Your task to perform on an android device: Go to Reddit.com Image 0: 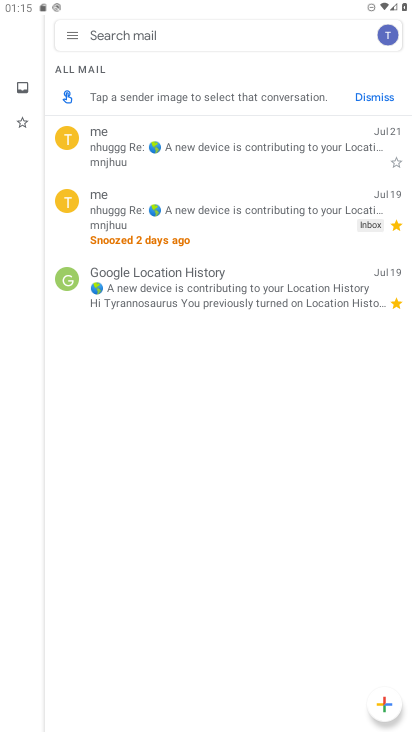
Step 0: press home button
Your task to perform on an android device: Go to Reddit.com Image 1: 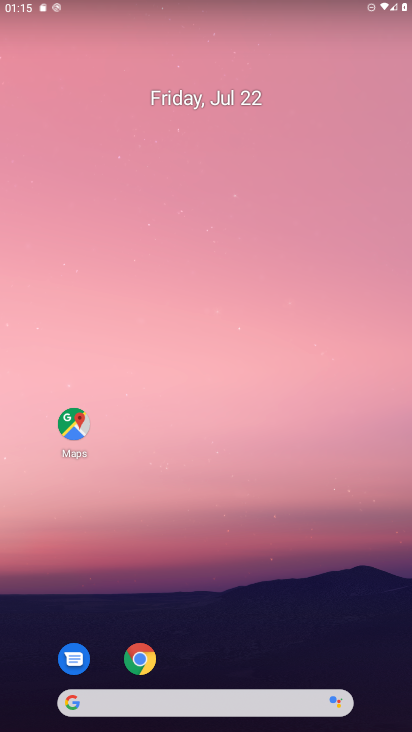
Step 1: click (142, 656)
Your task to perform on an android device: Go to Reddit.com Image 2: 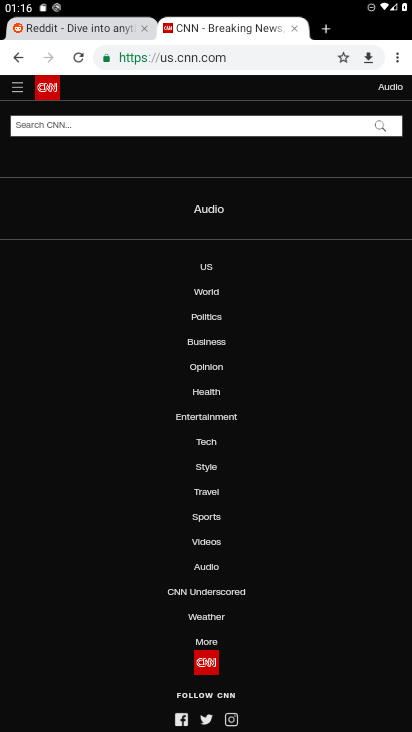
Step 2: click (259, 63)
Your task to perform on an android device: Go to Reddit.com Image 3: 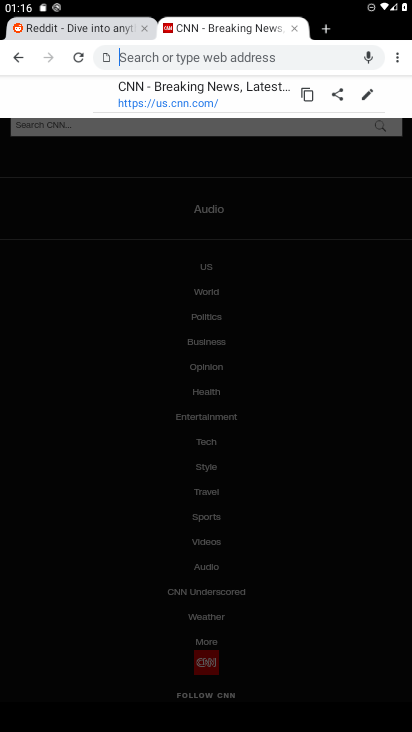
Step 3: type "Reddit.com"
Your task to perform on an android device: Go to Reddit.com Image 4: 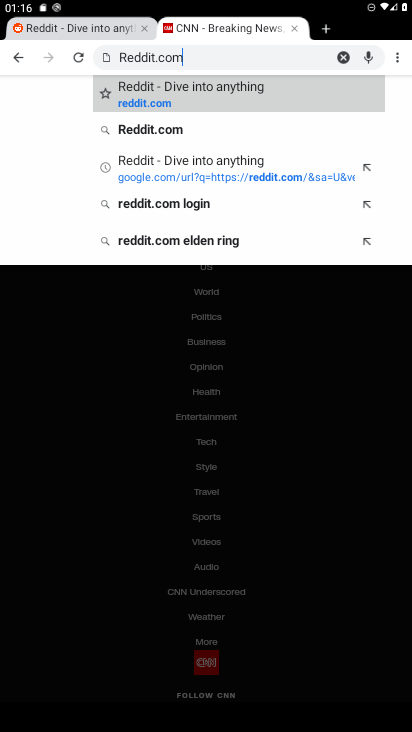
Step 4: click (173, 138)
Your task to perform on an android device: Go to Reddit.com Image 5: 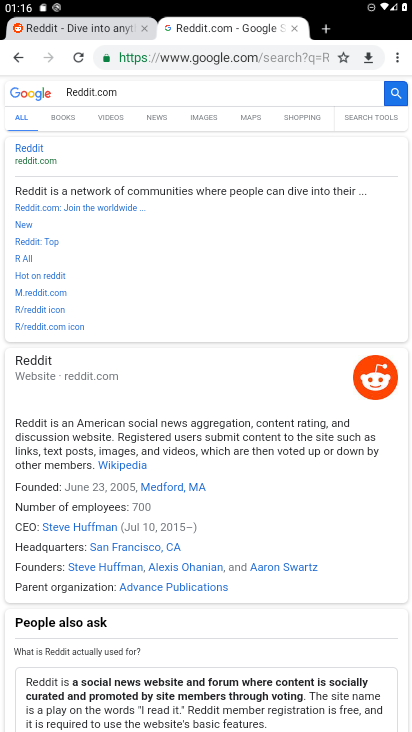
Step 5: click (72, 164)
Your task to perform on an android device: Go to Reddit.com Image 6: 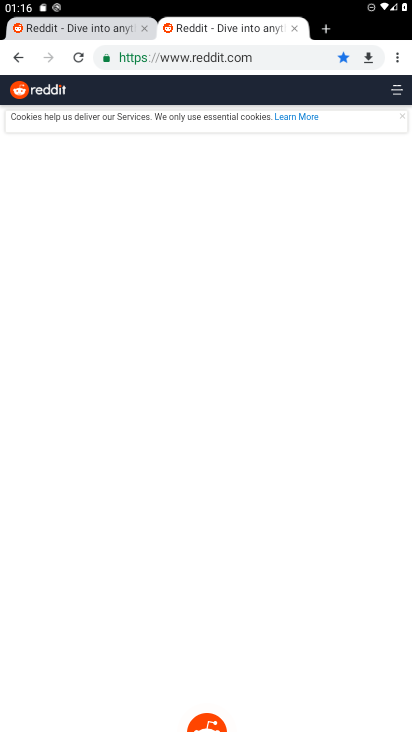
Step 6: task complete